Your task to perform on an android device: open app "Roku - Official Remote Control" Image 0: 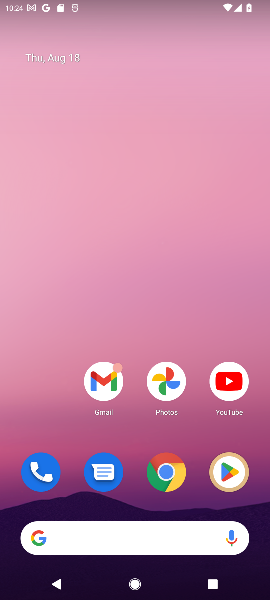
Step 0: click (235, 489)
Your task to perform on an android device: open app "Roku - Official Remote Control" Image 1: 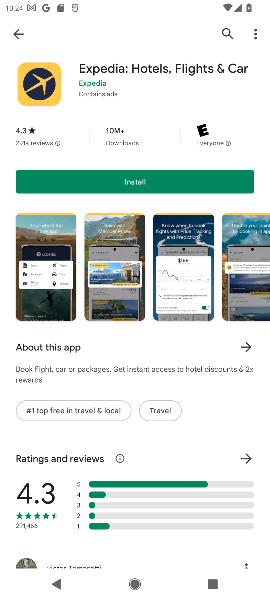
Step 1: click (226, 25)
Your task to perform on an android device: open app "Roku - Official Remote Control" Image 2: 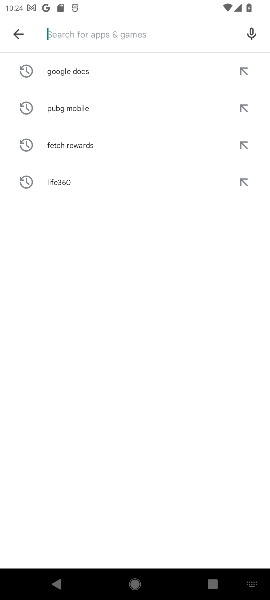
Step 2: type "roku"
Your task to perform on an android device: open app "Roku - Official Remote Control" Image 3: 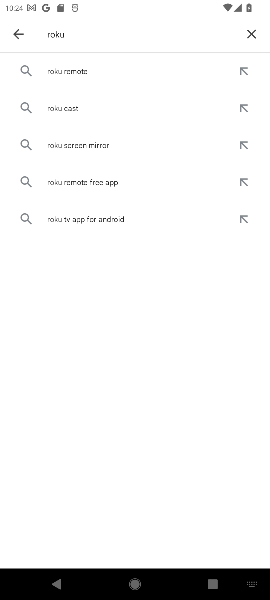
Step 3: click (99, 71)
Your task to perform on an android device: open app "Roku - Official Remote Control" Image 4: 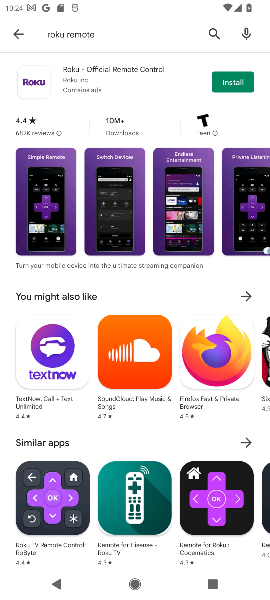
Step 4: click (103, 84)
Your task to perform on an android device: open app "Roku - Official Remote Control" Image 5: 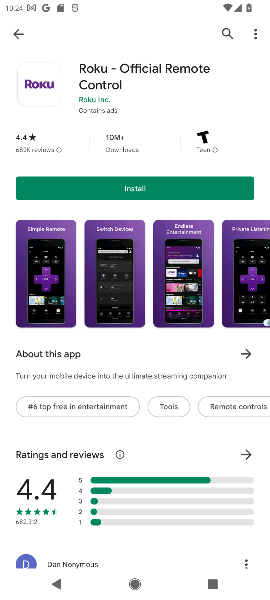
Step 5: task complete